Your task to perform on an android device: When is my next appointment? Image 0: 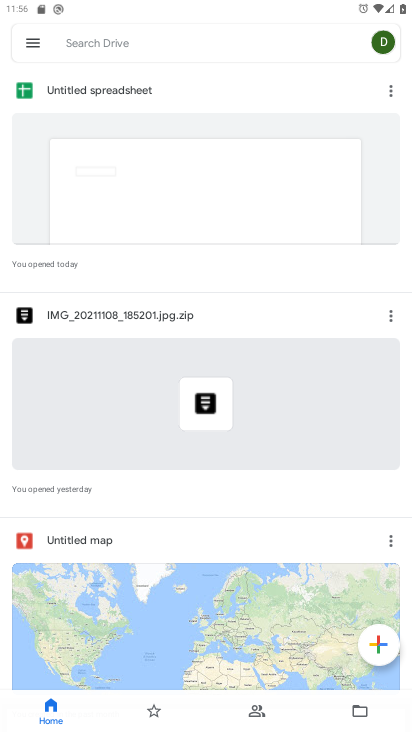
Step 0: press home button
Your task to perform on an android device: When is my next appointment? Image 1: 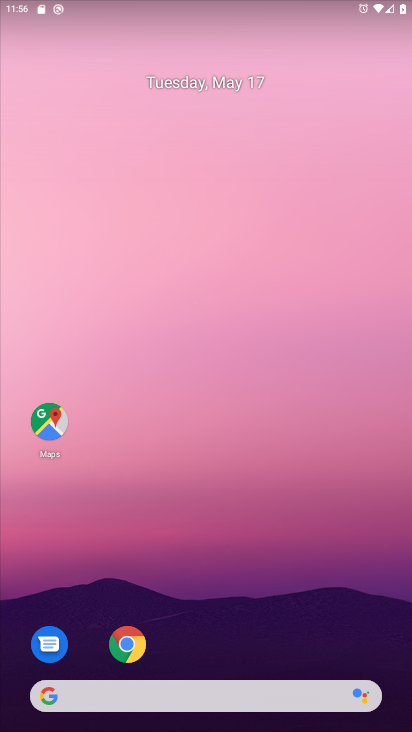
Step 1: drag from (225, 661) to (228, 118)
Your task to perform on an android device: When is my next appointment? Image 2: 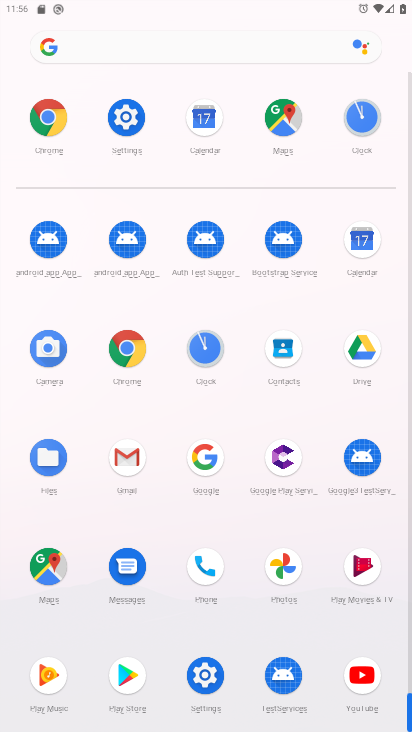
Step 2: click (354, 235)
Your task to perform on an android device: When is my next appointment? Image 3: 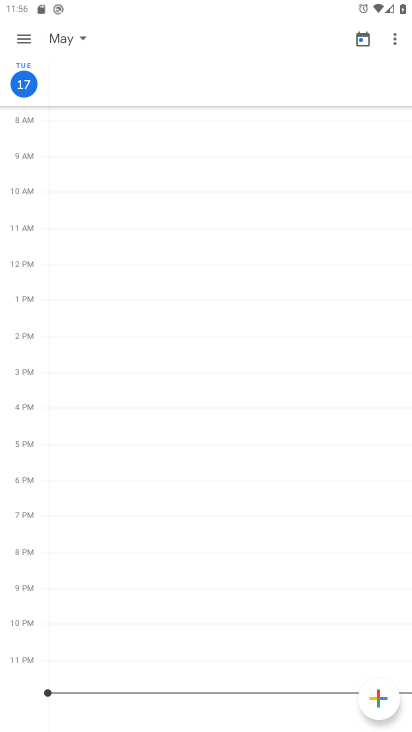
Step 3: click (33, 92)
Your task to perform on an android device: When is my next appointment? Image 4: 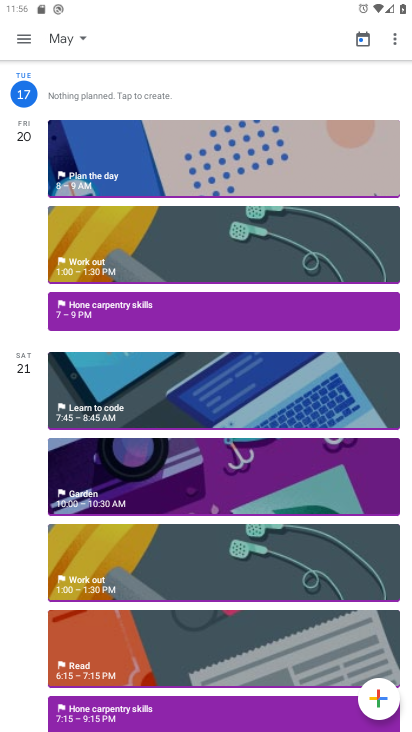
Step 4: task complete